Your task to perform on an android device: set default search engine in the chrome app Image 0: 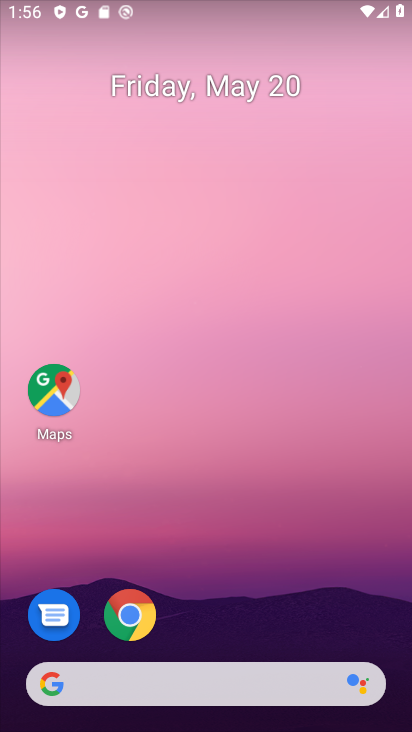
Step 0: click (126, 600)
Your task to perform on an android device: set default search engine in the chrome app Image 1: 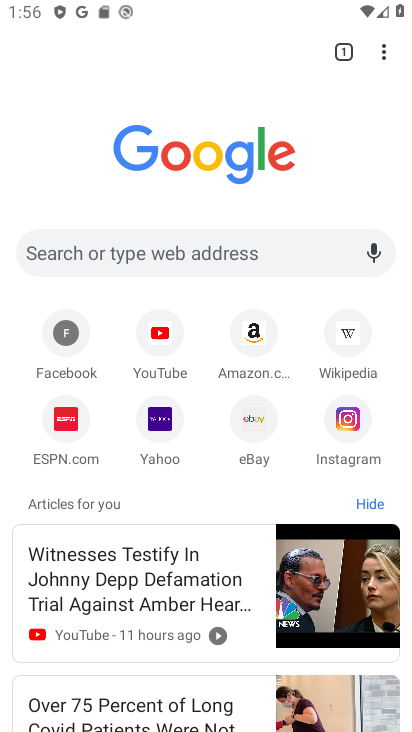
Step 1: click (388, 40)
Your task to perform on an android device: set default search engine in the chrome app Image 2: 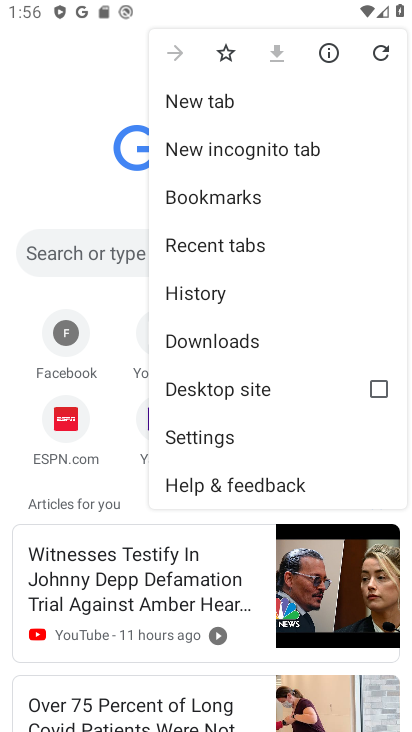
Step 2: click (295, 432)
Your task to perform on an android device: set default search engine in the chrome app Image 3: 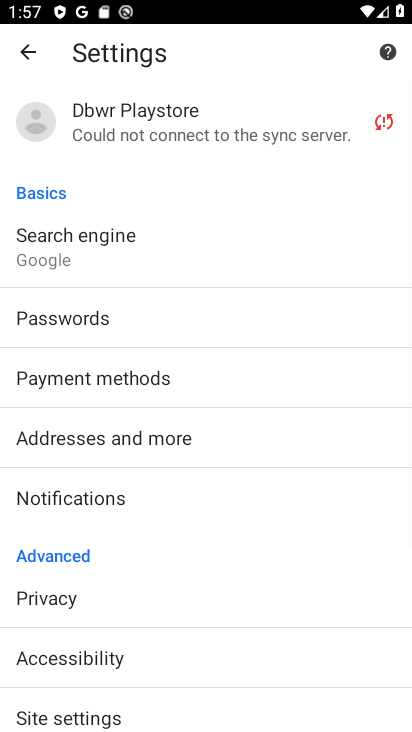
Step 3: click (146, 233)
Your task to perform on an android device: set default search engine in the chrome app Image 4: 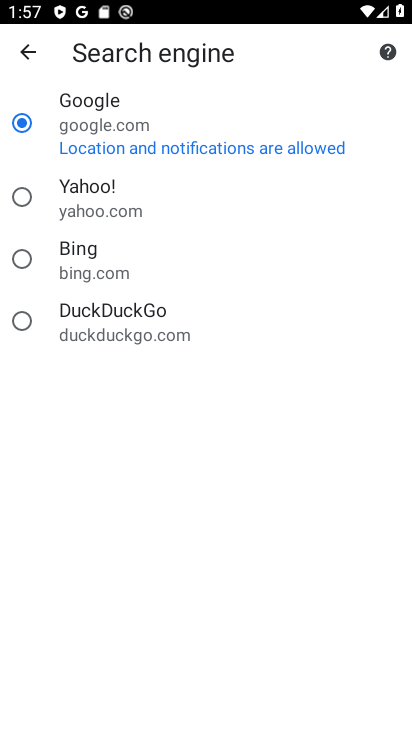
Step 4: click (181, 194)
Your task to perform on an android device: set default search engine in the chrome app Image 5: 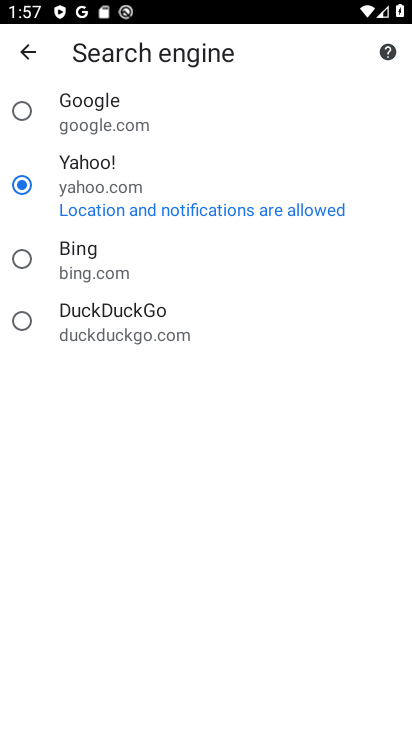
Step 5: task complete